Your task to perform on an android device: Open Chrome and go to the settings page Image 0: 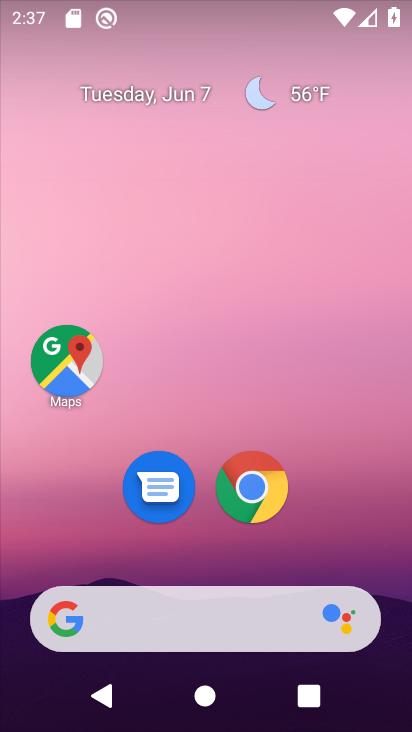
Step 0: click (263, 488)
Your task to perform on an android device: Open Chrome and go to the settings page Image 1: 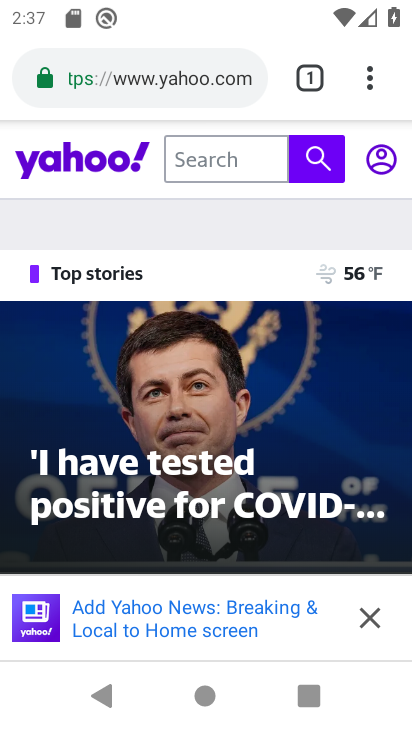
Step 1: click (365, 93)
Your task to perform on an android device: Open Chrome and go to the settings page Image 2: 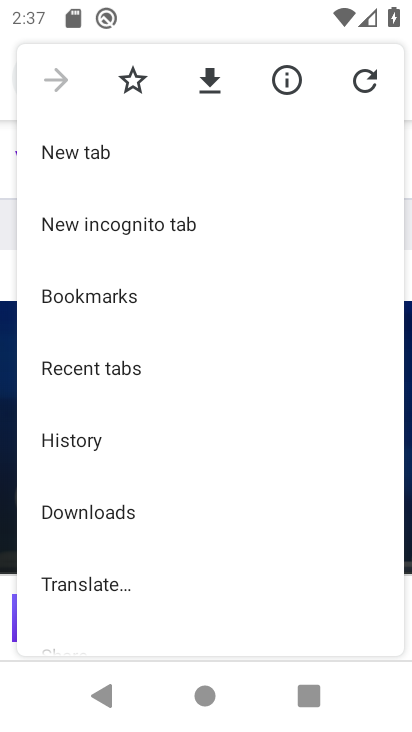
Step 2: drag from (199, 612) to (146, 139)
Your task to perform on an android device: Open Chrome and go to the settings page Image 3: 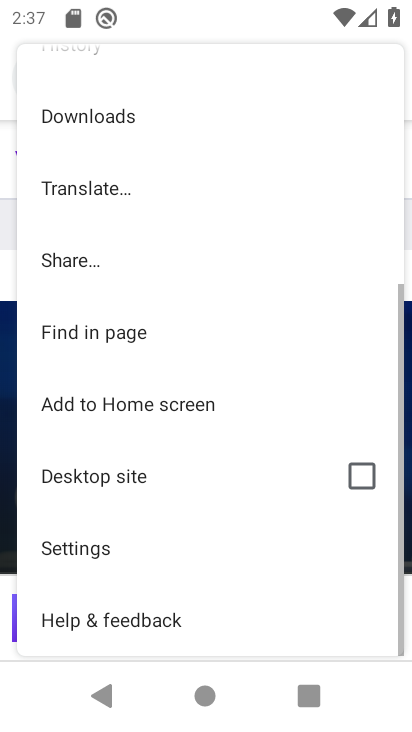
Step 3: click (158, 540)
Your task to perform on an android device: Open Chrome and go to the settings page Image 4: 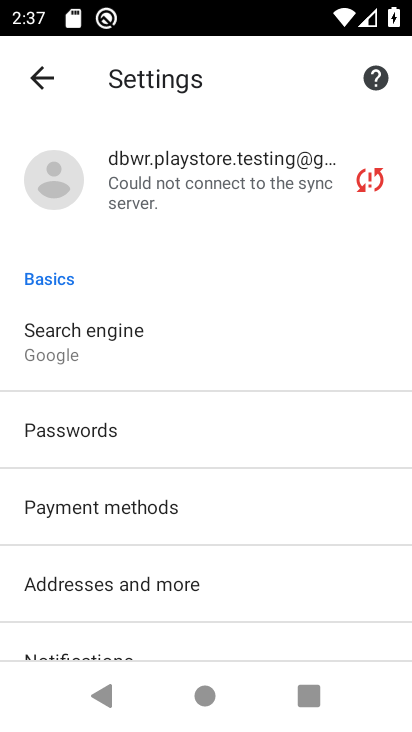
Step 4: task complete